Your task to perform on an android device: Go to internet settings Image 0: 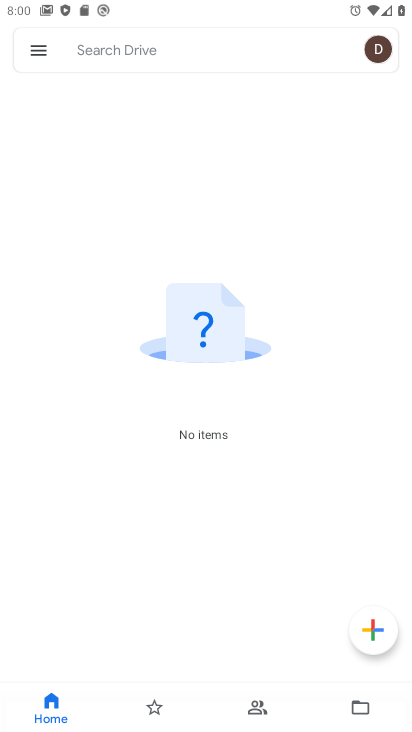
Step 0: press home button
Your task to perform on an android device: Go to internet settings Image 1: 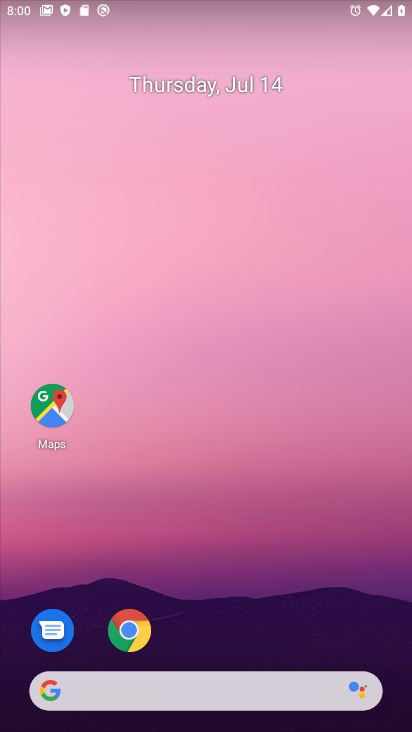
Step 1: drag from (194, 687) to (182, 152)
Your task to perform on an android device: Go to internet settings Image 2: 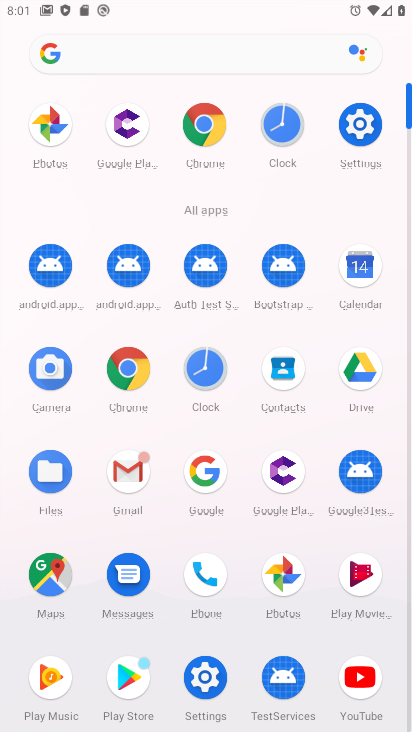
Step 2: click (369, 115)
Your task to perform on an android device: Go to internet settings Image 3: 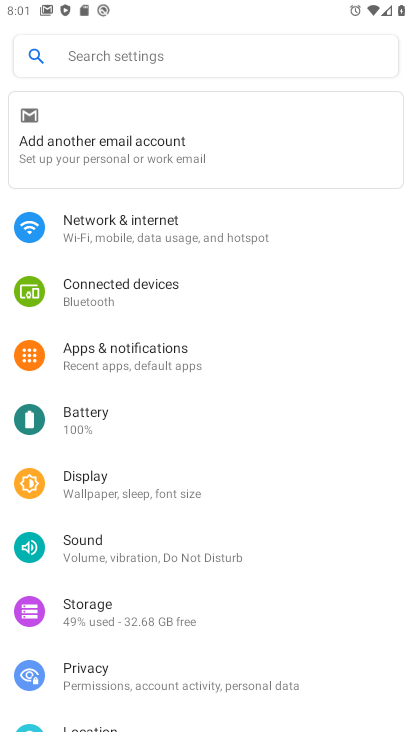
Step 3: click (123, 225)
Your task to perform on an android device: Go to internet settings Image 4: 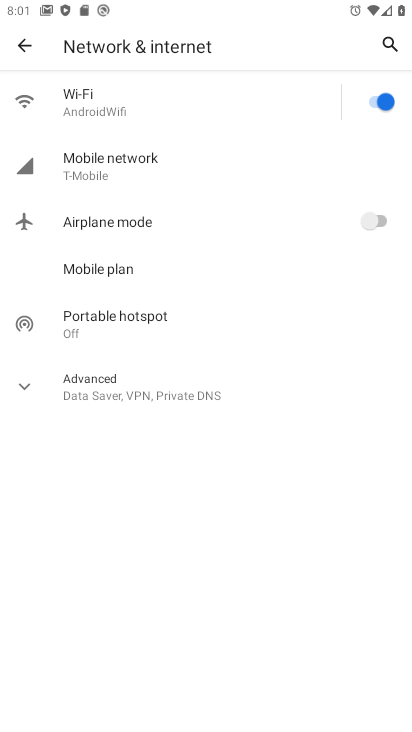
Step 4: task complete